Your task to perform on an android device: open app "Mercado Libre" (install if not already installed), go to login, and select forgot password Image 0: 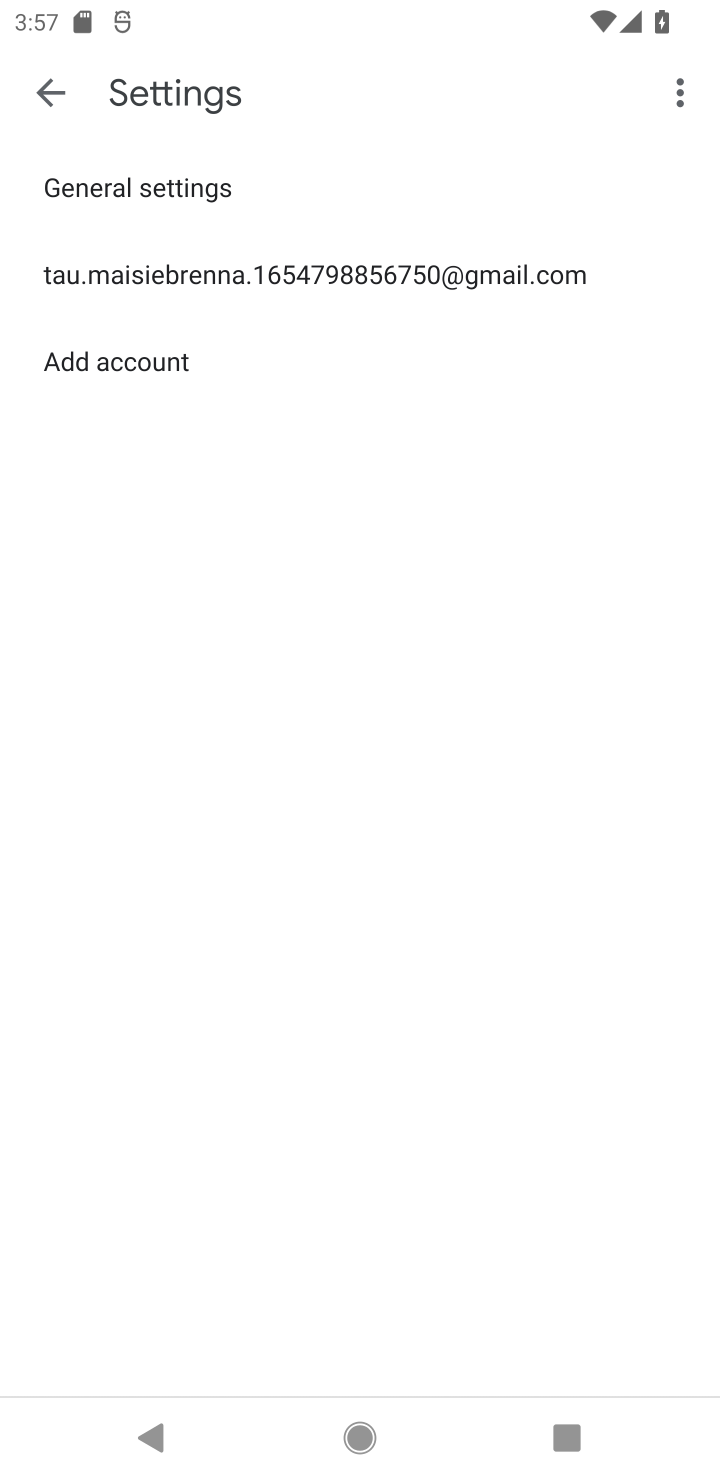
Step 0: press home button
Your task to perform on an android device: open app "Mercado Libre" (install if not already installed), go to login, and select forgot password Image 1: 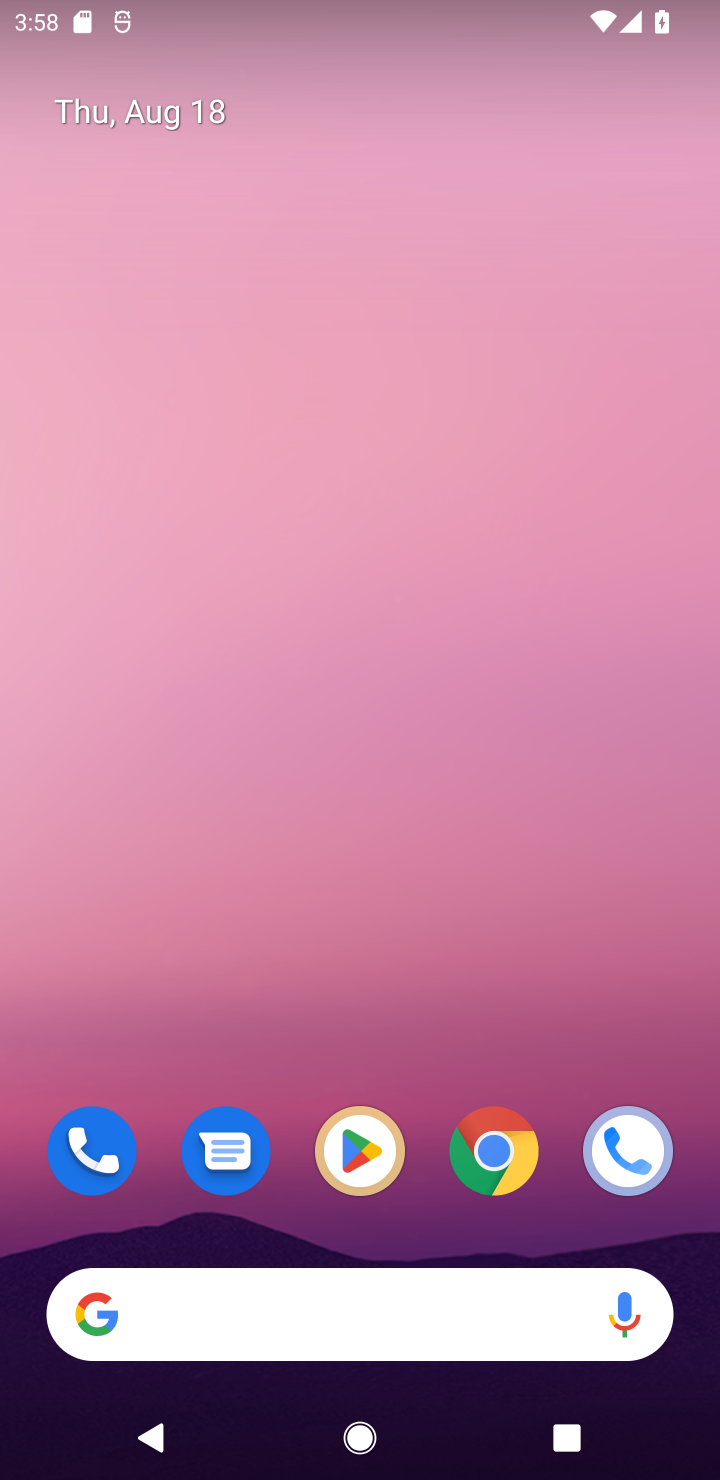
Step 1: click (346, 1192)
Your task to perform on an android device: open app "Mercado Libre" (install if not already installed), go to login, and select forgot password Image 2: 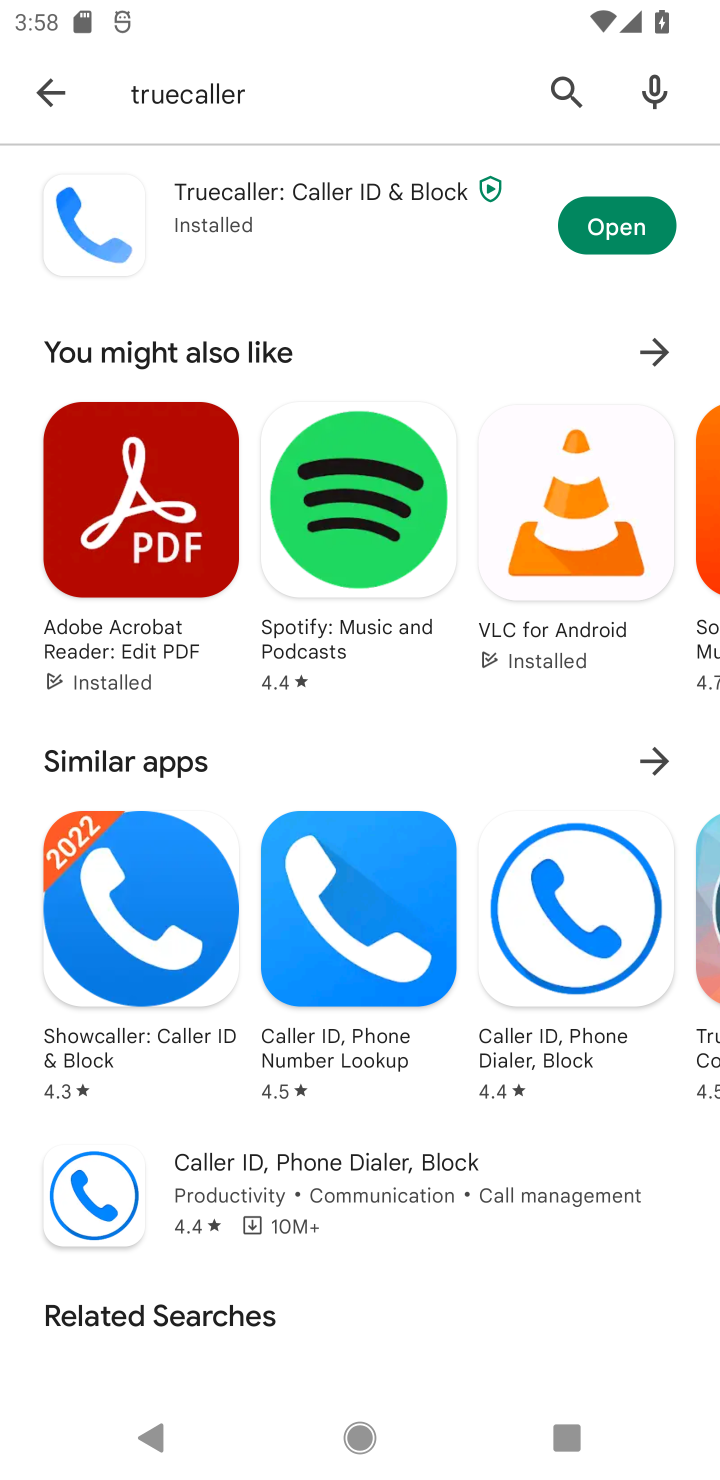
Step 2: click (570, 117)
Your task to perform on an android device: open app "Mercado Libre" (install if not already installed), go to login, and select forgot password Image 3: 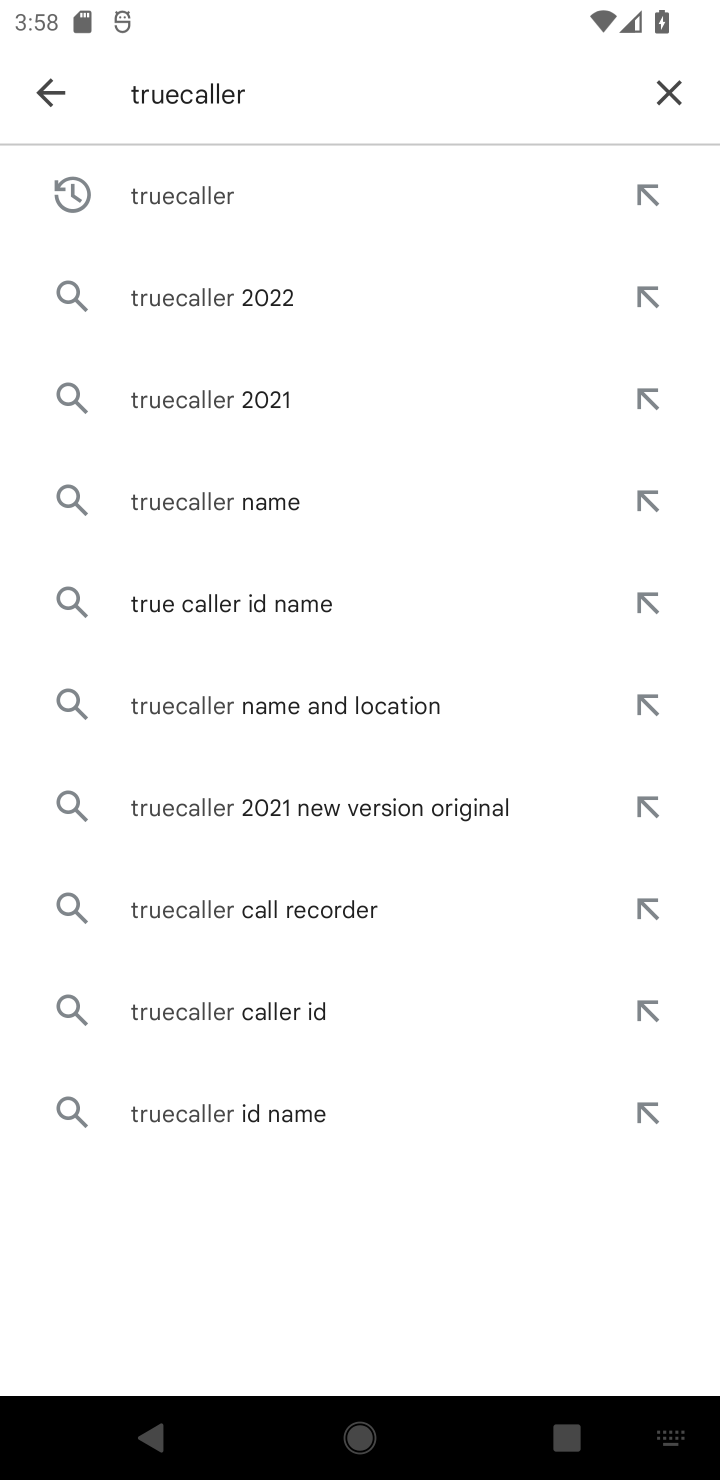
Step 3: click (668, 102)
Your task to perform on an android device: open app "Mercado Libre" (install if not already installed), go to login, and select forgot password Image 4: 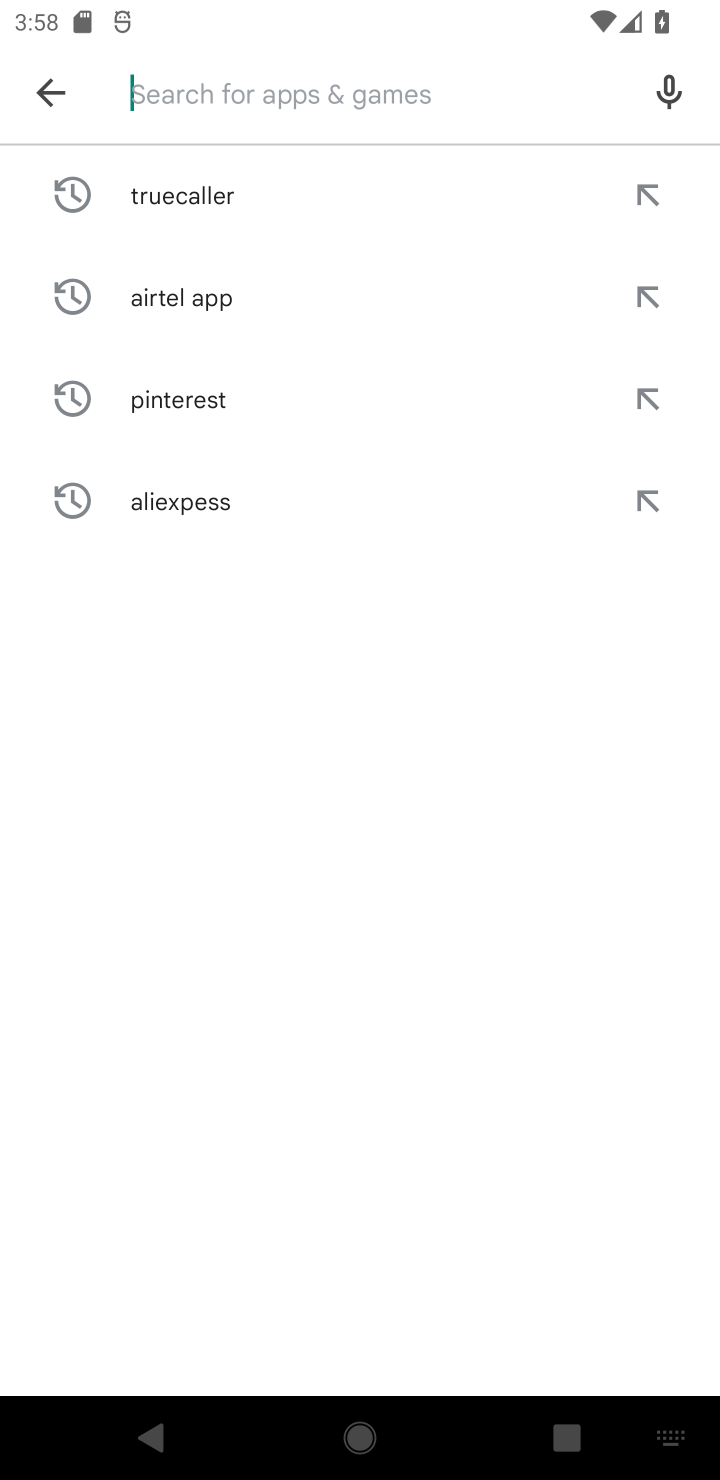
Step 4: type "MERCADO"
Your task to perform on an android device: open app "Mercado Libre" (install if not already installed), go to login, and select forgot password Image 5: 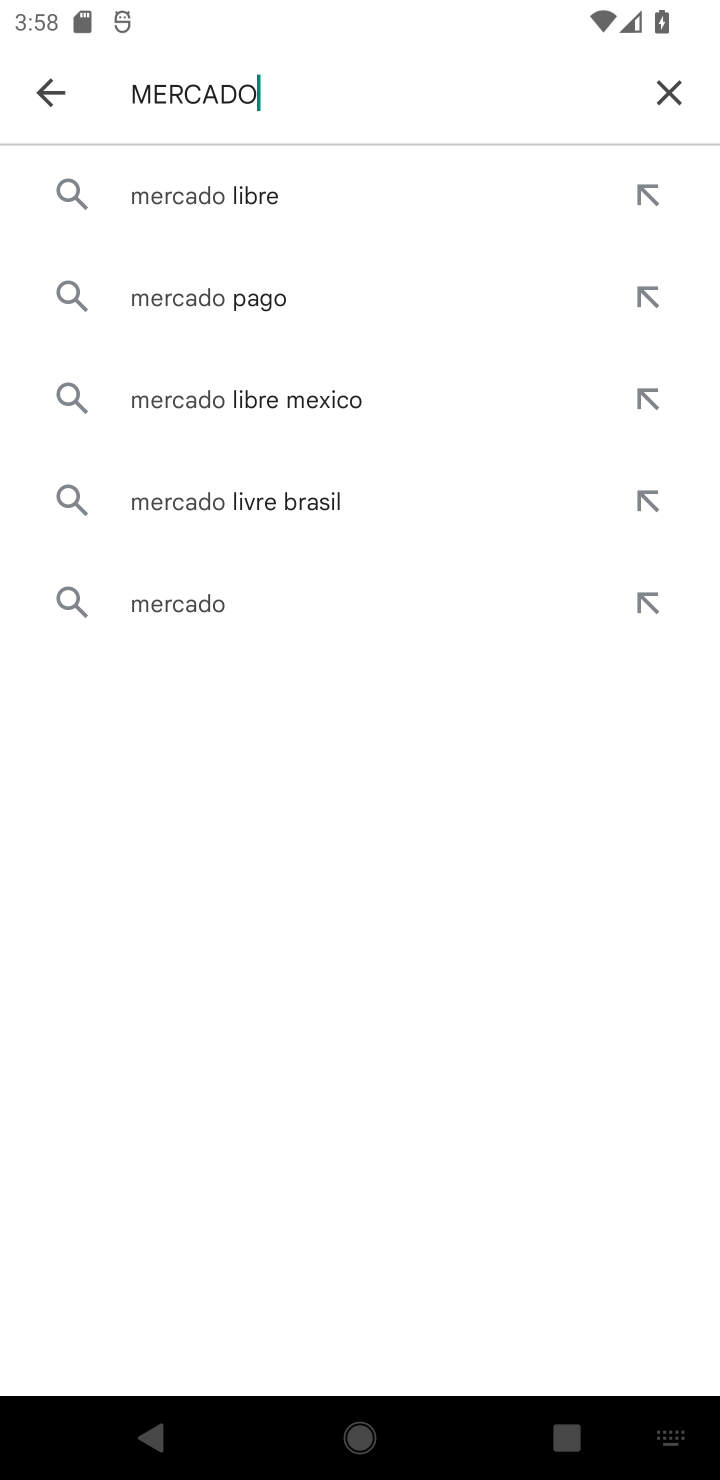
Step 5: click (233, 166)
Your task to perform on an android device: open app "Mercado Libre" (install if not already installed), go to login, and select forgot password Image 6: 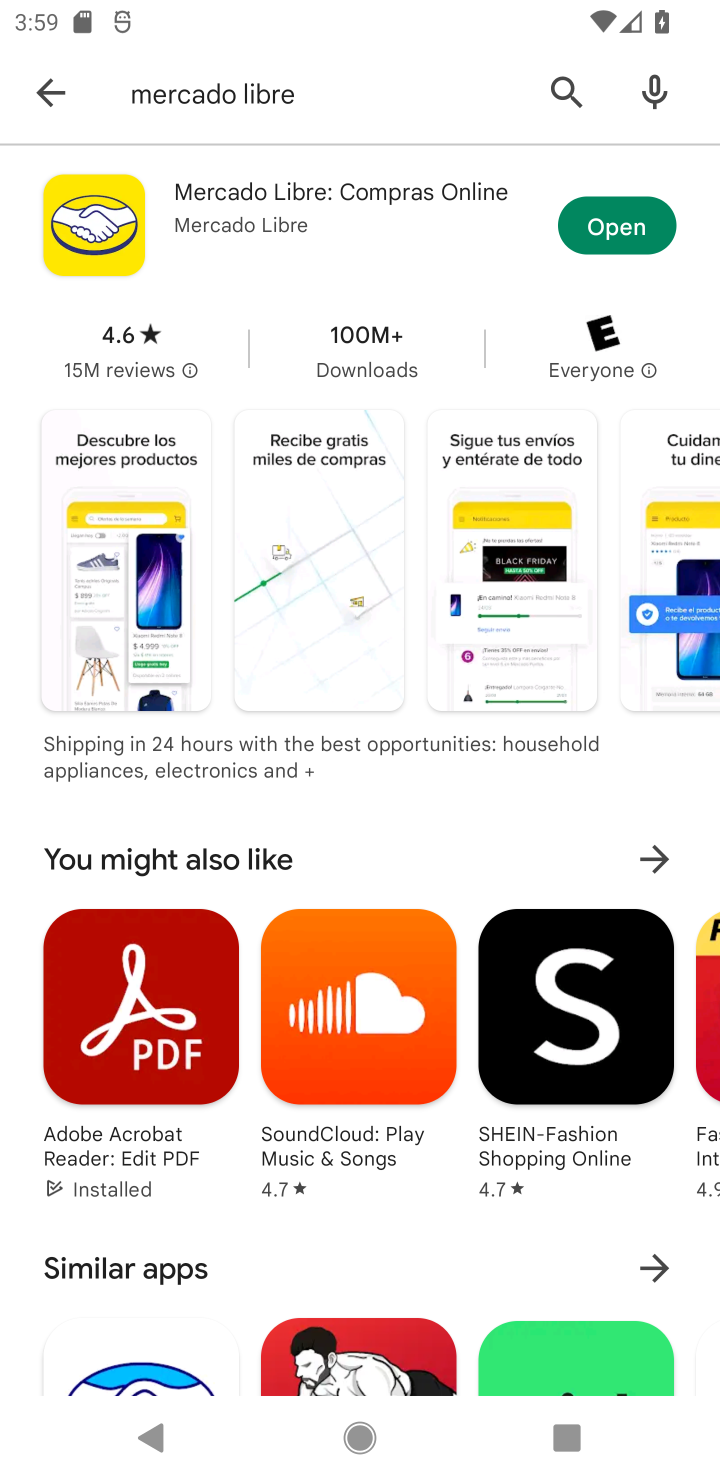
Step 6: click (604, 235)
Your task to perform on an android device: open app "Mercado Libre" (install if not already installed), go to login, and select forgot password Image 7: 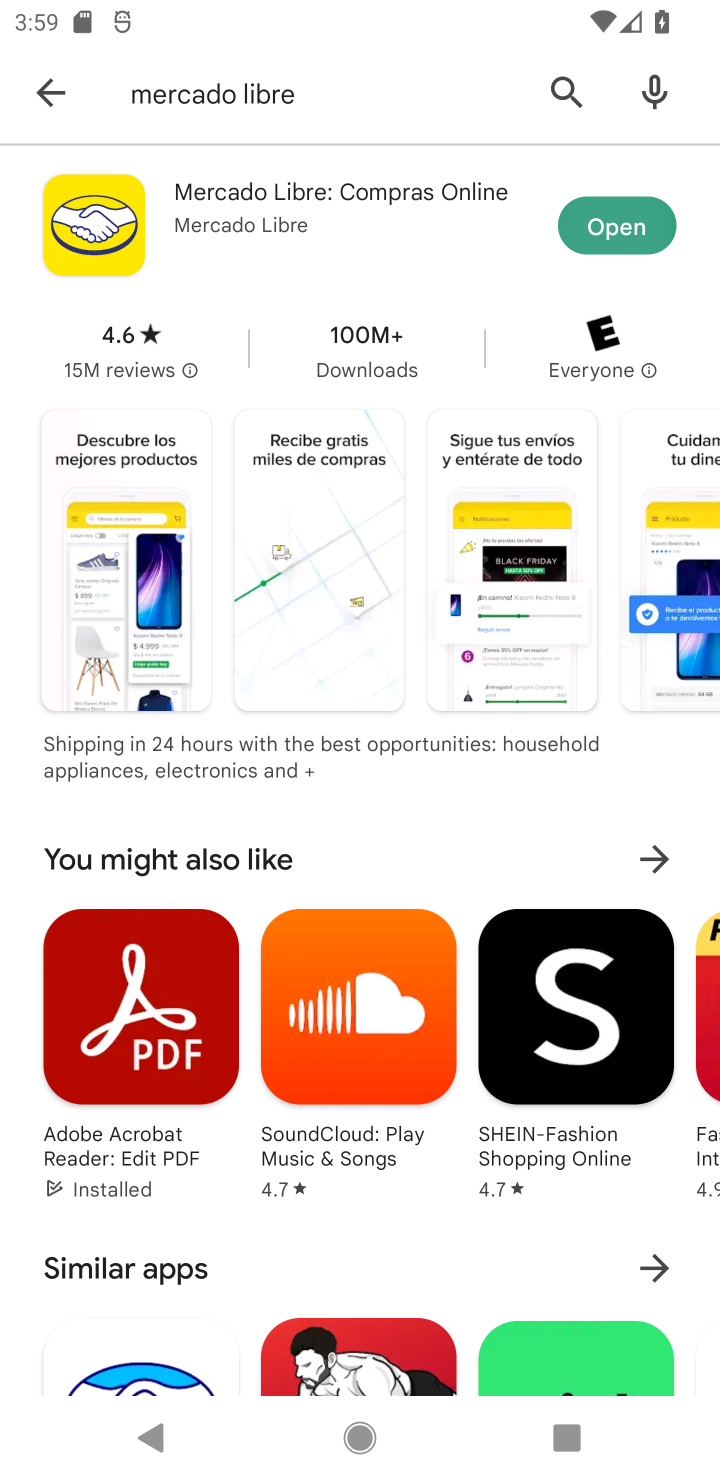
Step 7: task complete